Your task to perform on an android device: Find coffee shops on Maps Image 0: 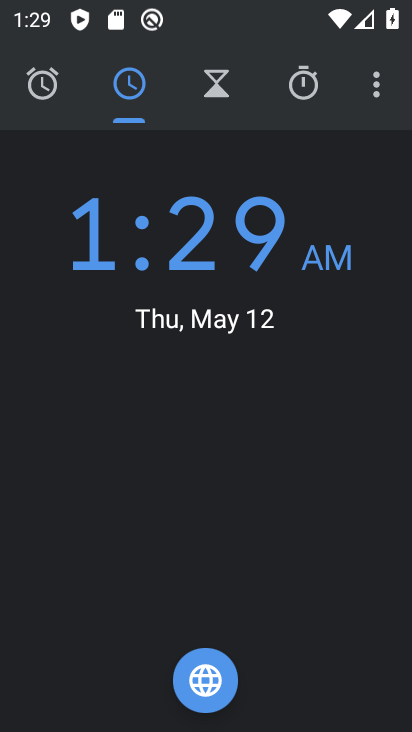
Step 0: press home button
Your task to perform on an android device: Find coffee shops on Maps Image 1: 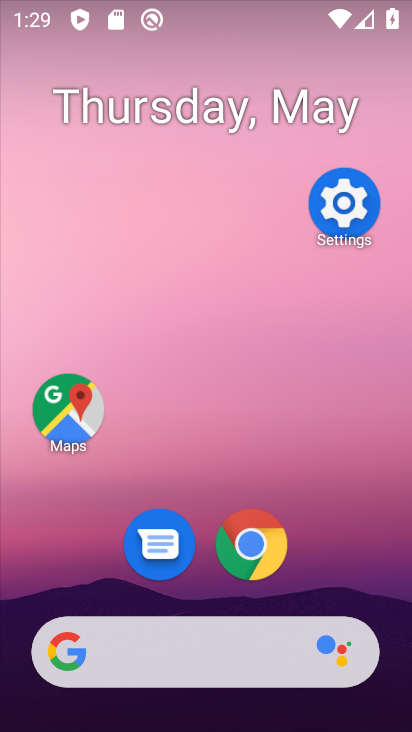
Step 1: click (84, 422)
Your task to perform on an android device: Find coffee shops on Maps Image 2: 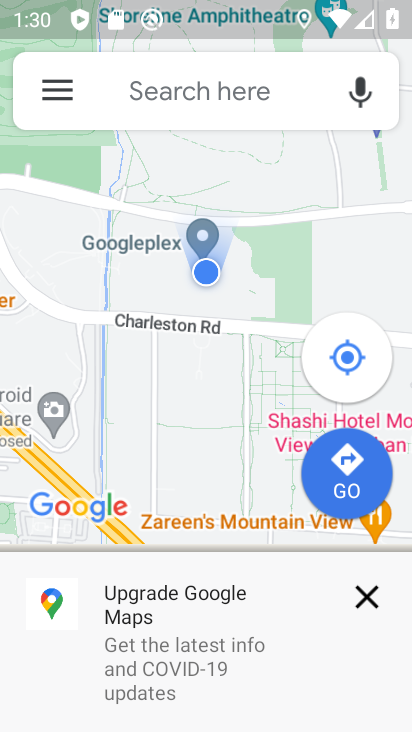
Step 2: click (191, 94)
Your task to perform on an android device: Find coffee shops on Maps Image 3: 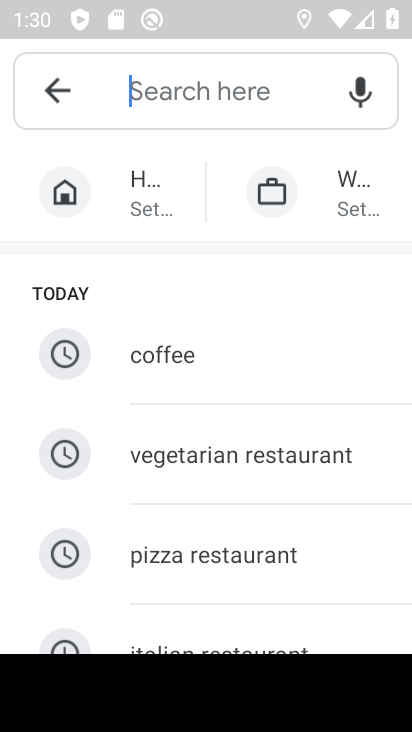
Step 3: type "coffee shop"
Your task to perform on an android device: Find coffee shops on Maps Image 4: 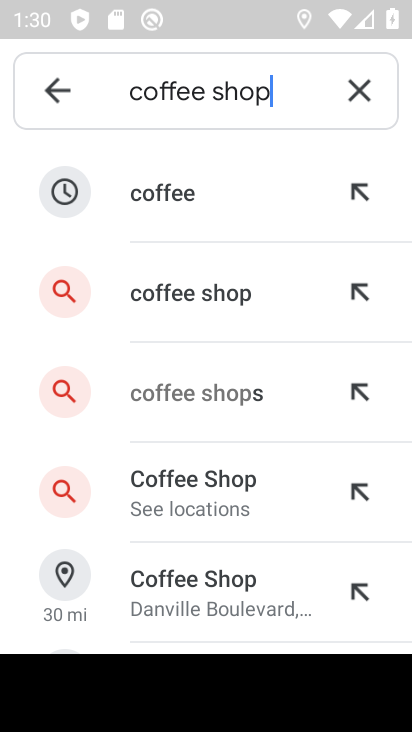
Step 4: click (164, 308)
Your task to perform on an android device: Find coffee shops on Maps Image 5: 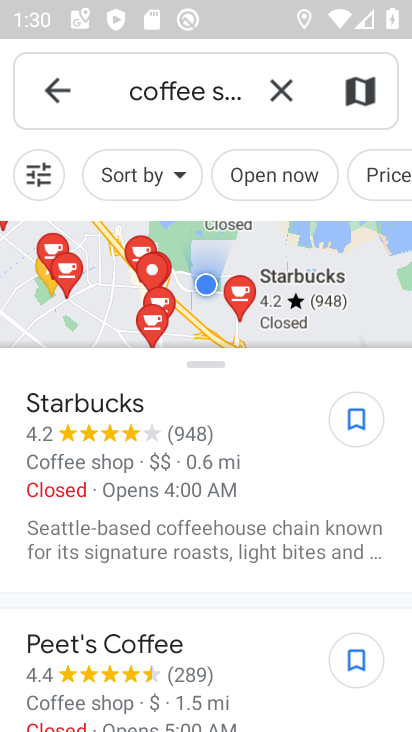
Step 5: task complete